Your task to perform on an android device: Clear the cart on bestbuy.com. Add usb-c to the cart on bestbuy.com Image 0: 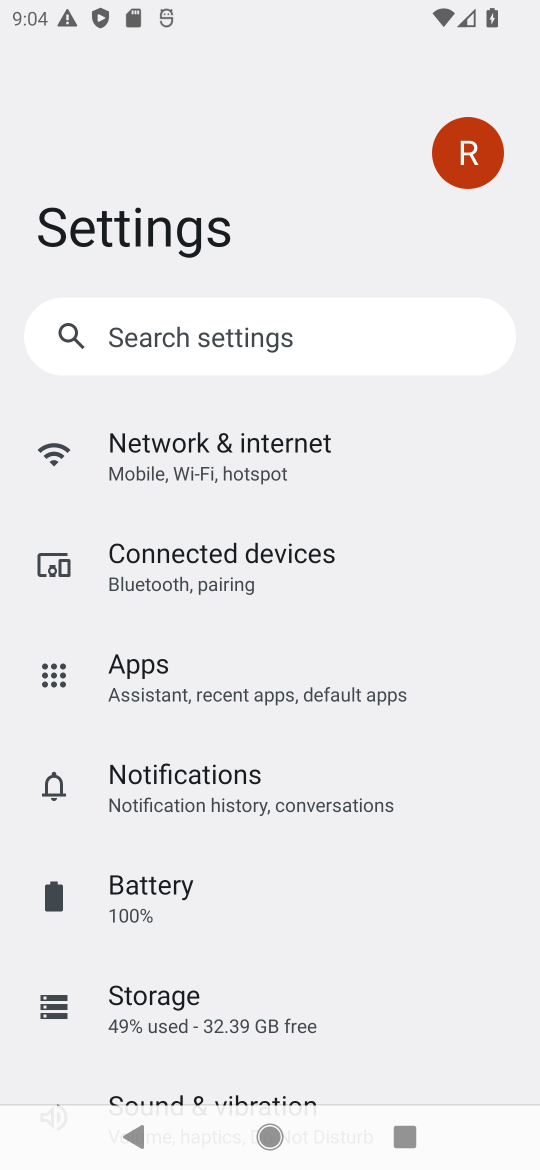
Step 0: press home button
Your task to perform on an android device: Clear the cart on bestbuy.com. Add usb-c to the cart on bestbuy.com Image 1: 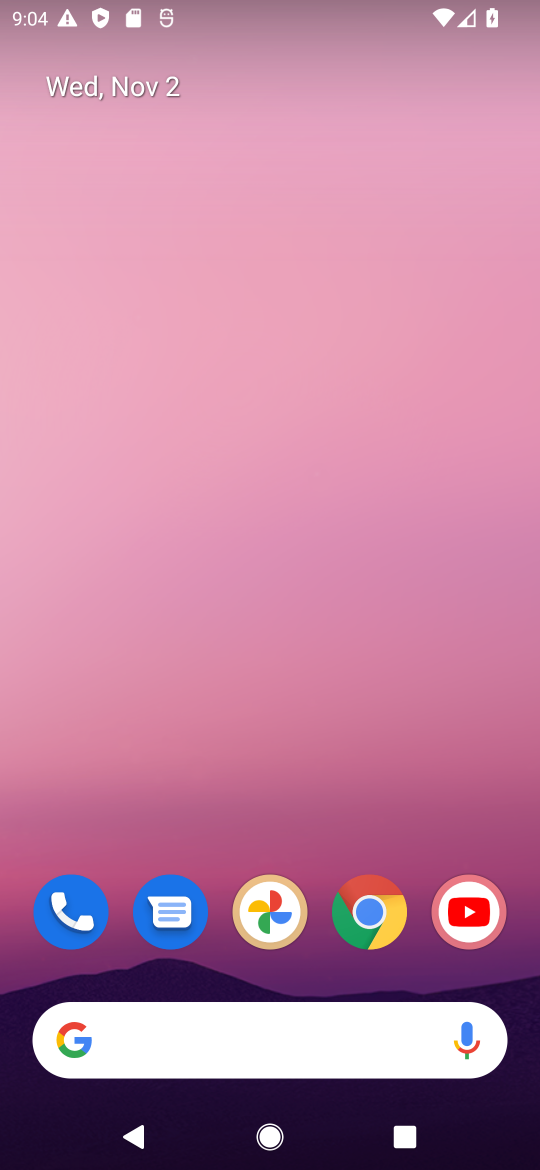
Step 1: drag from (351, 1099) to (364, 20)
Your task to perform on an android device: Clear the cart on bestbuy.com. Add usb-c to the cart on bestbuy.com Image 2: 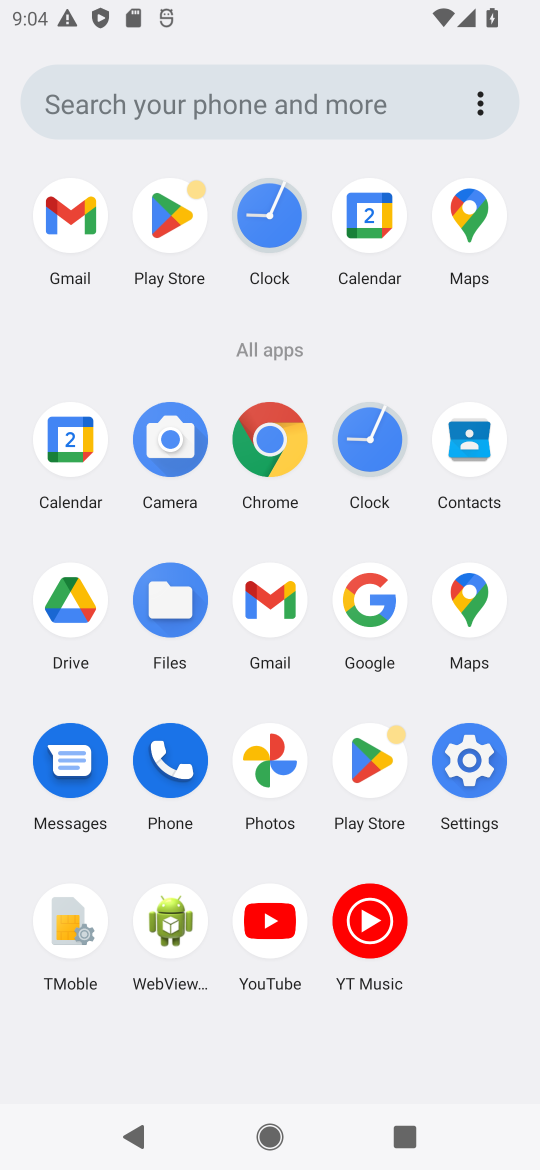
Step 2: click (273, 431)
Your task to perform on an android device: Clear the cart on bestbuy.com. Add usb-c to the cart on bestbuy.com Image 3: 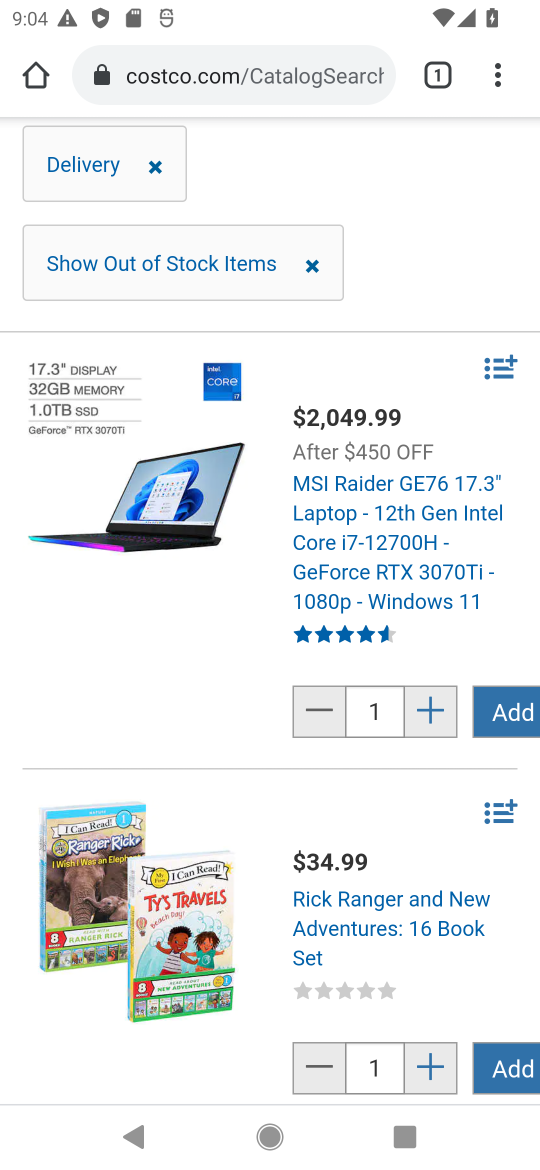
Step 3: click (273, 74)
Your task to perform on an android device: Clear the cart on bestbuy.com. Add usb-c to the cart on bestbuy.com Image 4: 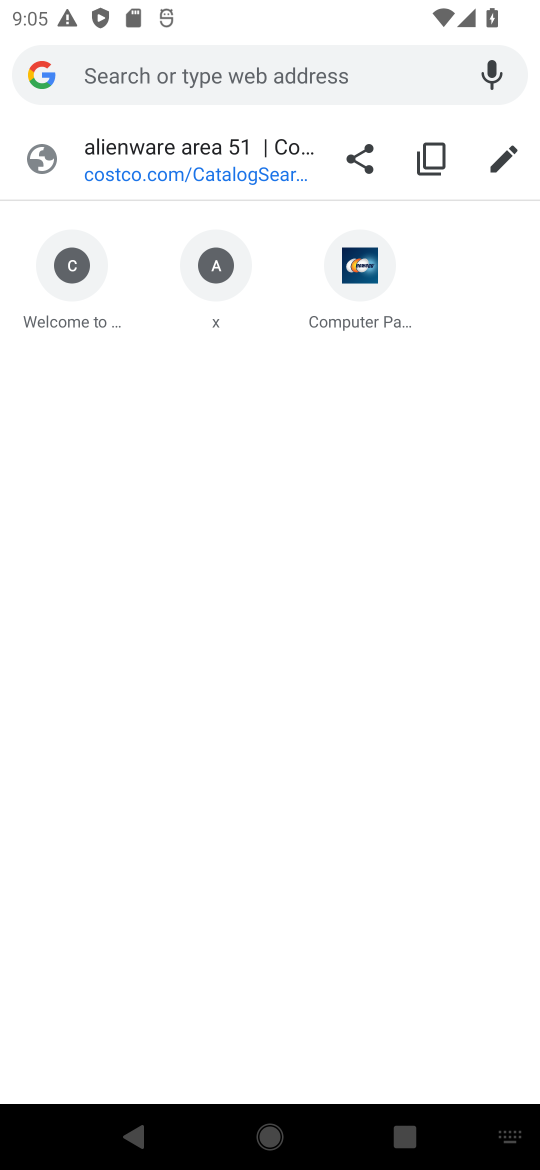
Step 4: type "bestbuy.com"
Your task to perform on an android device: Clear the cart on bestbuy.com. Add usb-c to the cart on bestbuy.com Image 5: 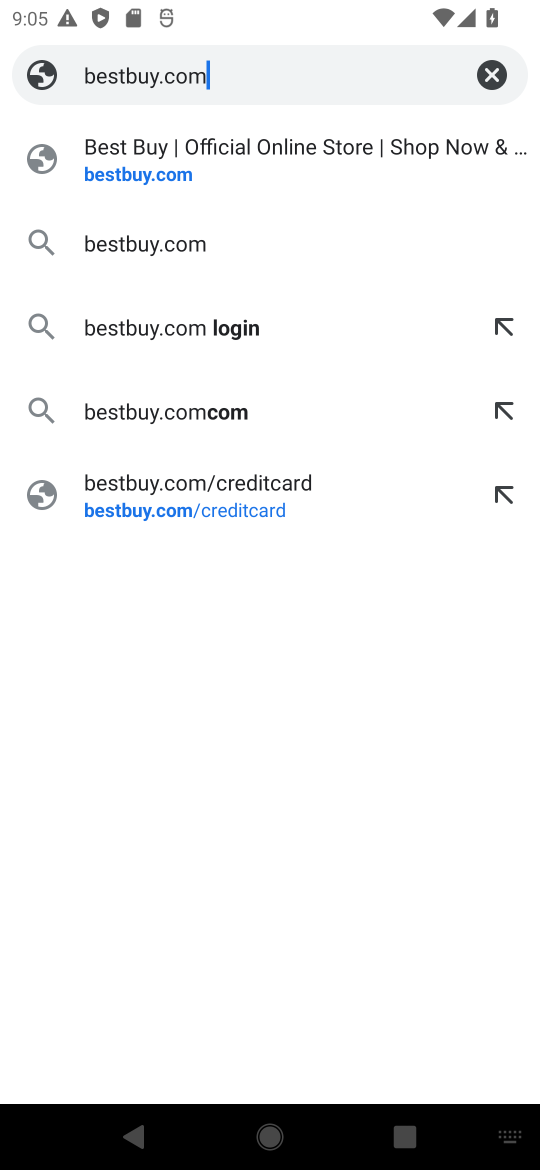
Step 5: click (124, 172)
Your task to perform on an android device: Clear the cart on bestbuy.com. Add usb-c to the cart on bestbuy.com Image 6: 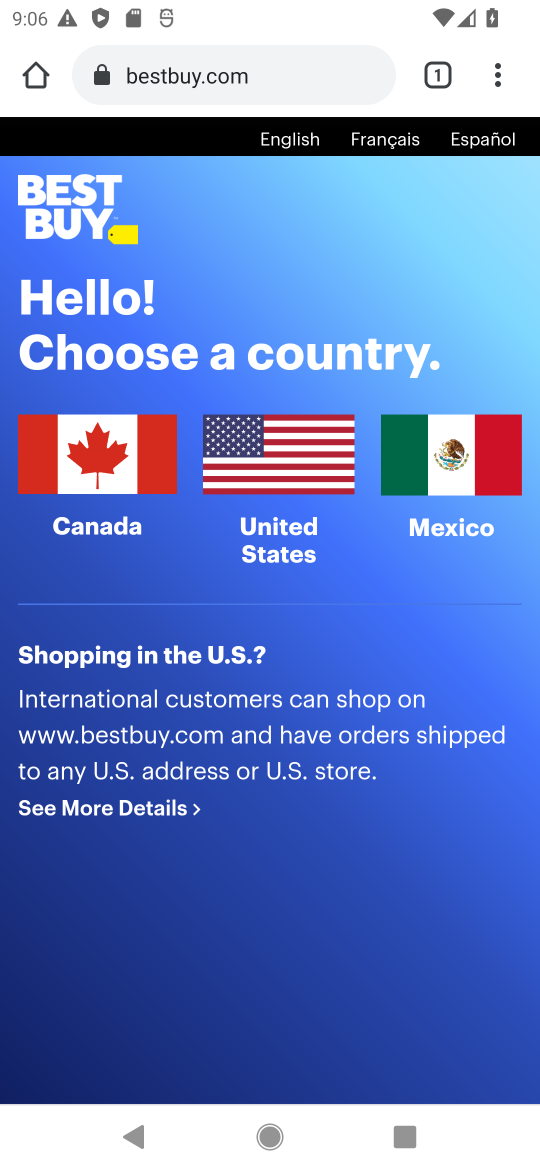
Step 6: click (119, 454)
Your task to perform on an android device: Clear the cart on bestbuy.com. Add usb-c to the cart on bestbuy.com Image 7: 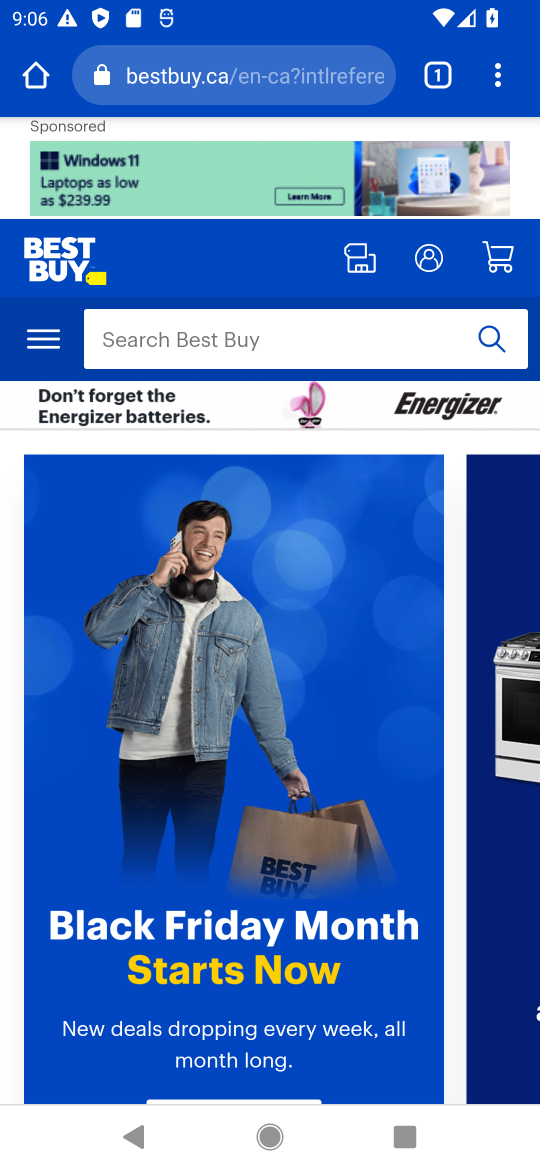
Step 7: click (191, 336)
Your task to perform on an android device: Clear the cart on bestbuy.com. Add usb-c to the cart on bestbuy.com Image 8: 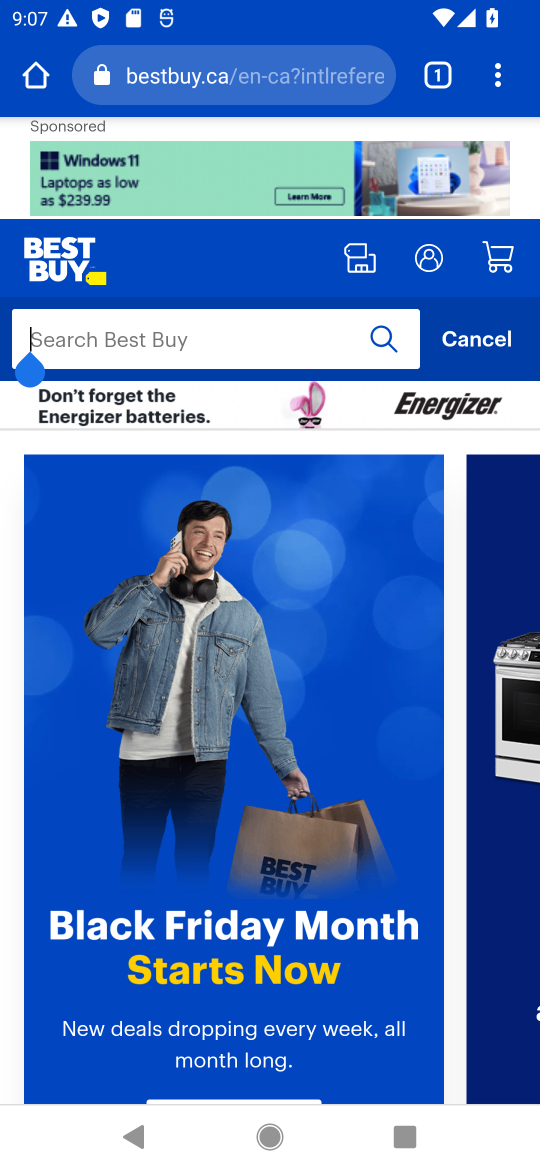
Step 8: type "usb-c "
Your task to perform on an android device: Clear the cart on bestbuy.com. Add usb-c to the cart on bestbuy.com Image 9: 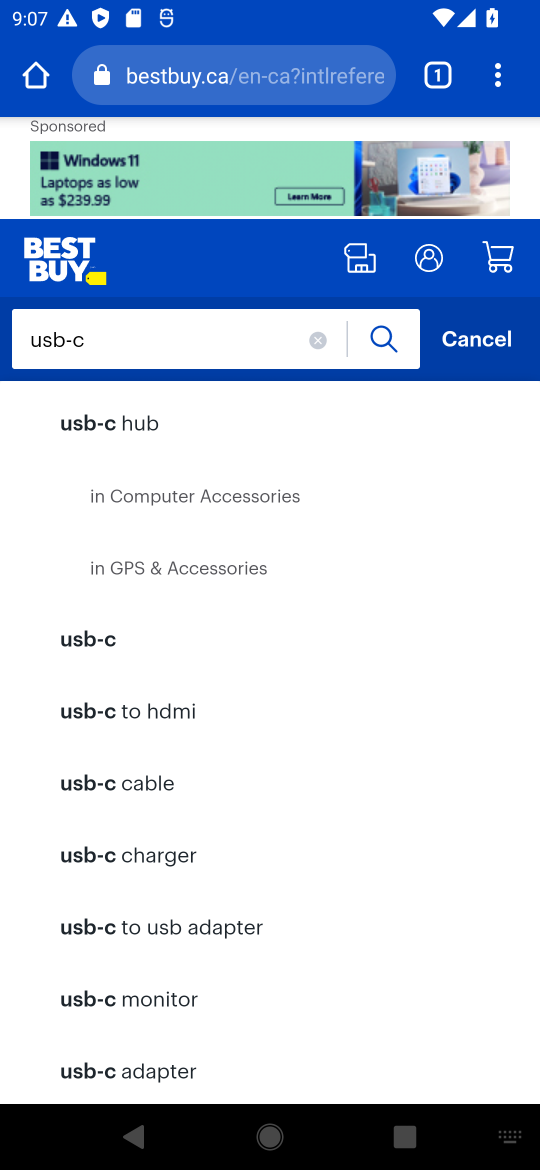
Step 9: click (83, 423)
Your task to perform on an android device: Clear the cart on bestbuy.com. Add usb-c to the cart on bestbuy.com Image 10: 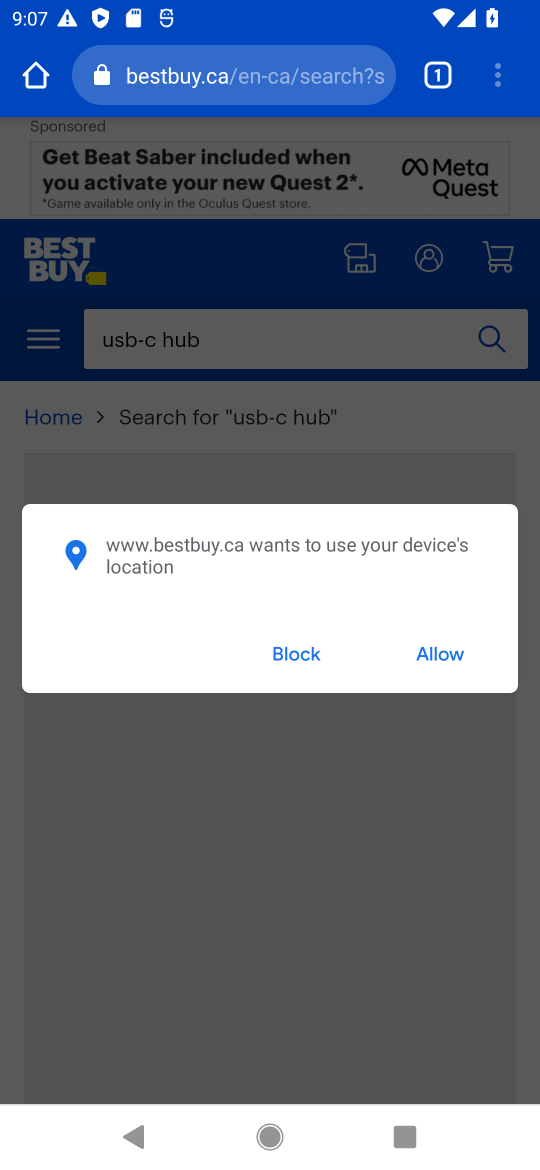
Step 10: click (439, 645)
Your task to perform on an android device: Clear the cart on bestbuy.com. Add usb-c to the cart on bestbuy.com Image 11: 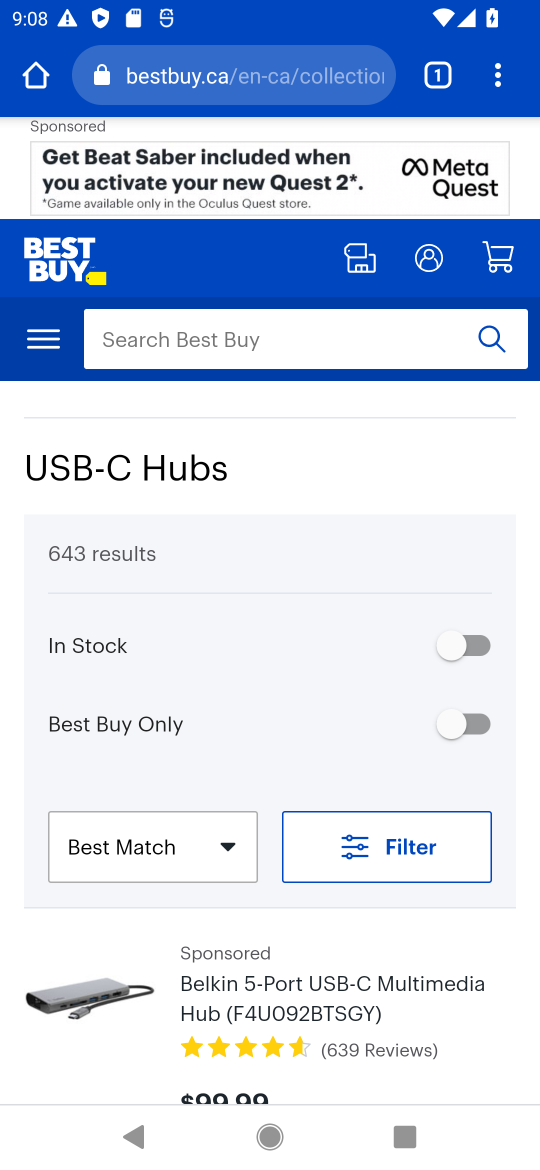
Step 11: drag from (302, 928) to (230, 327)
Your task to perform on an android device: Clear the cart on bestbuy.com. Add usb-c to the cart on bestbuy.com Image 12: 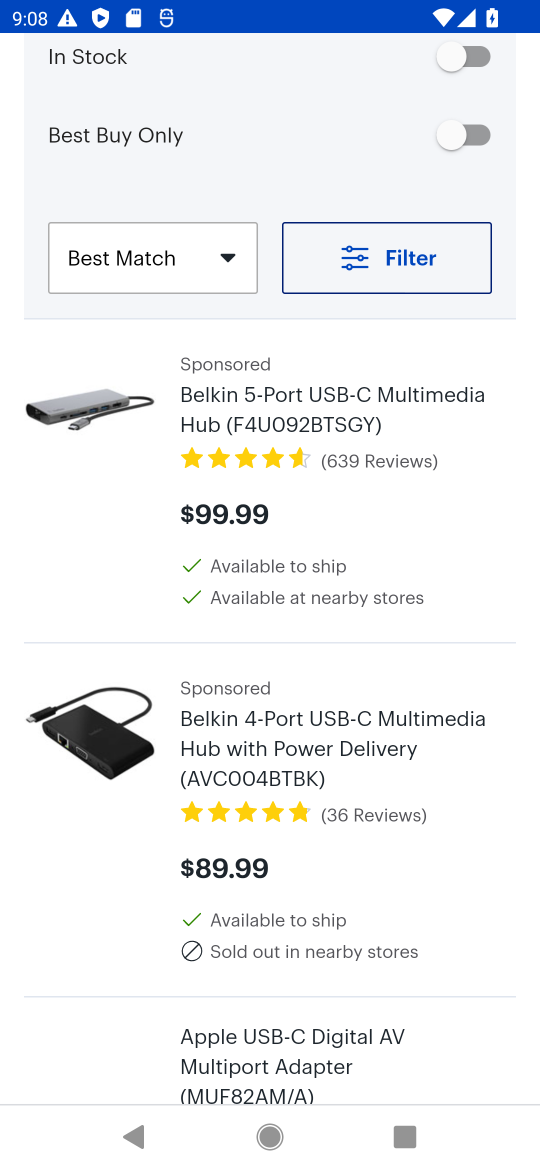
Step 12: click (158, 432)
Your task to perform on an android device: Clear the cart on bestbuy.com. Add usb-c to the cart on bestbuy.com Image 13: 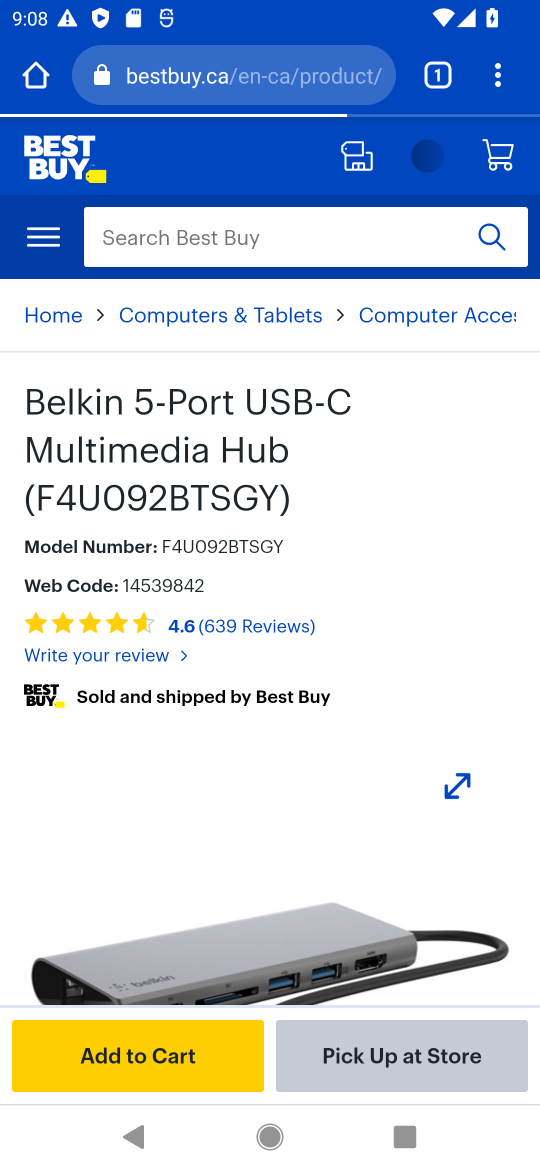
Step 13: drag from (306, 713) to (311, 419)
Your task to perform on an android device: Clear the cart on bestbuy.com. Add usb-c to the cart on bestbuy.com Image 14: 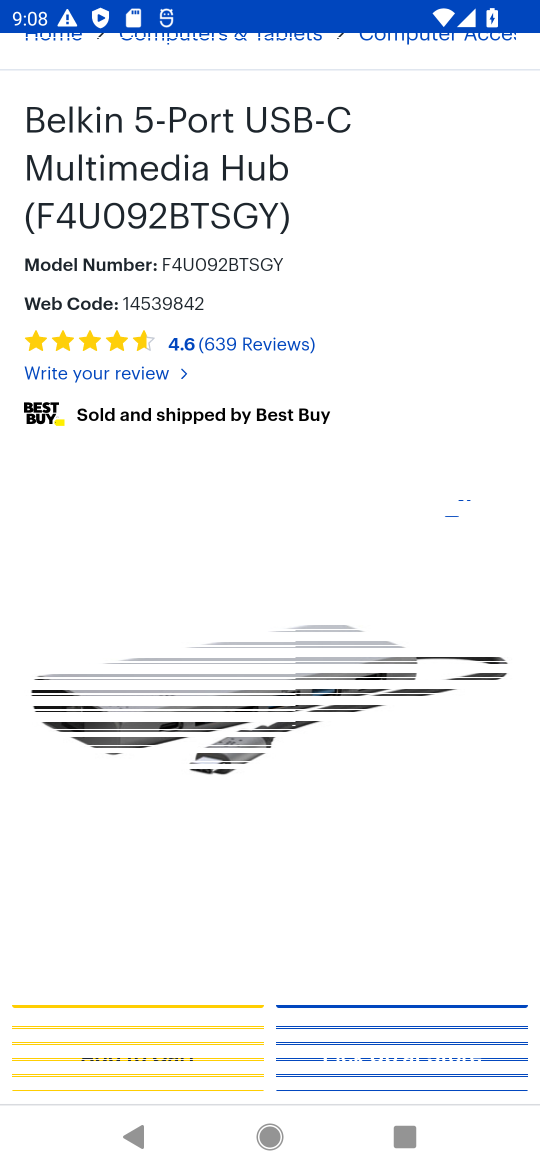
Step 14: click (126, 1051)
Your task to perform on an android device: Clear the cart on bestbuy.com. Add usb-c to the cart on bestbuy.com Image 15: 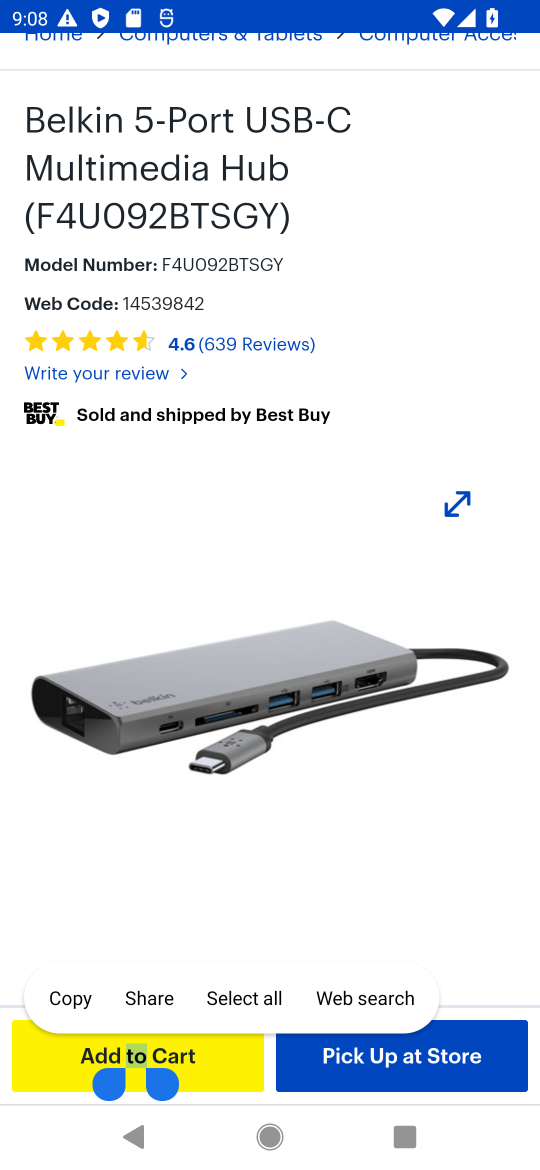
Step 15: click (188, 1045)
Your task to perform on an android device: Clear the cart on bestbuy.com. Add usb-c to the cart on bestbuy.com Image 16: 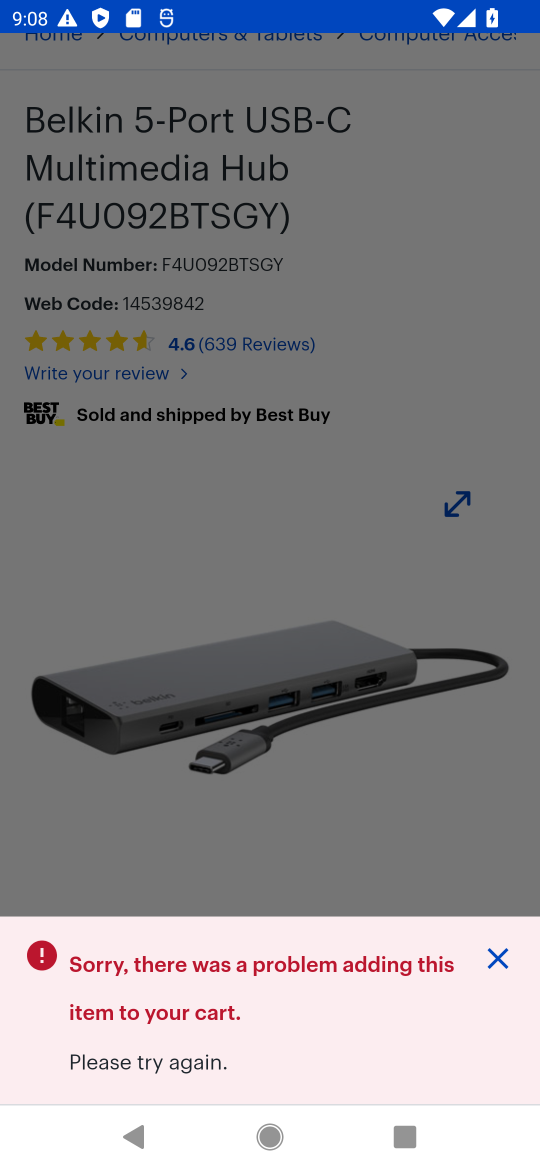
Step 16: task complete